Your task to perform on an android device: visit the assistant section in the google photos Image 0: 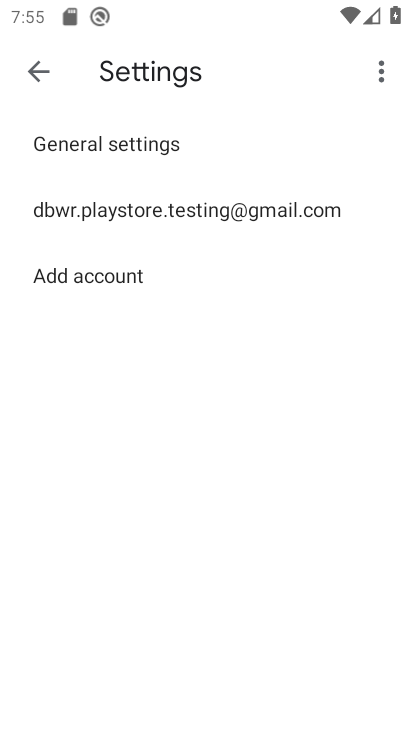
Step 0: press home button
Your task to perform on an android device: visit the assistant section in the google photos Image 1: 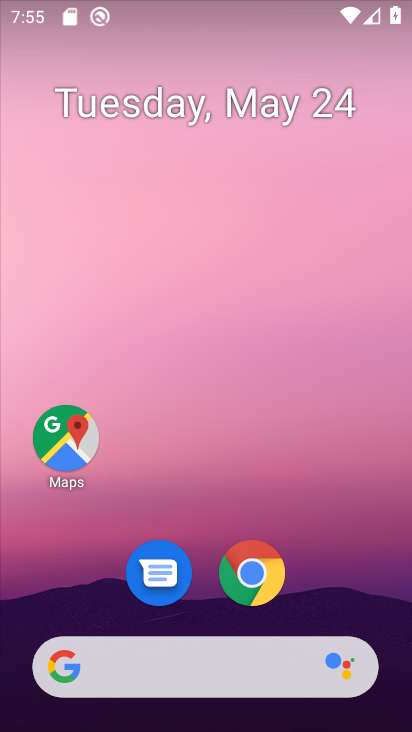
Step 1: drag from (348, 579) to (301, 84)
Your task to perform on an android device: visit the assistant section in the google photos Image 2: 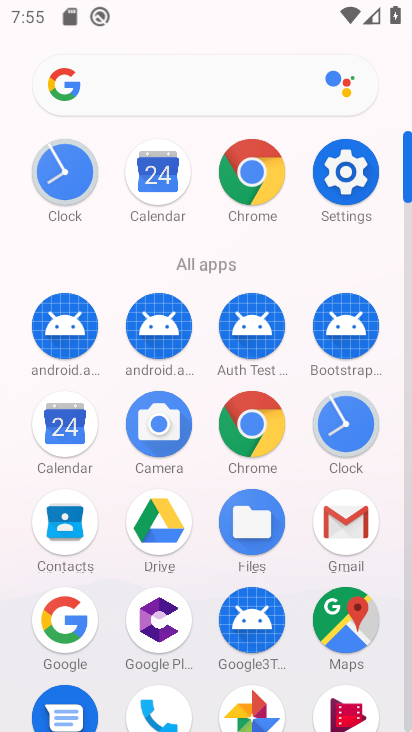
Step 2: drag from (382, 568) to (301, 227)
Your task to perform on an android device: visit the assistant section in the google photos Image 3: 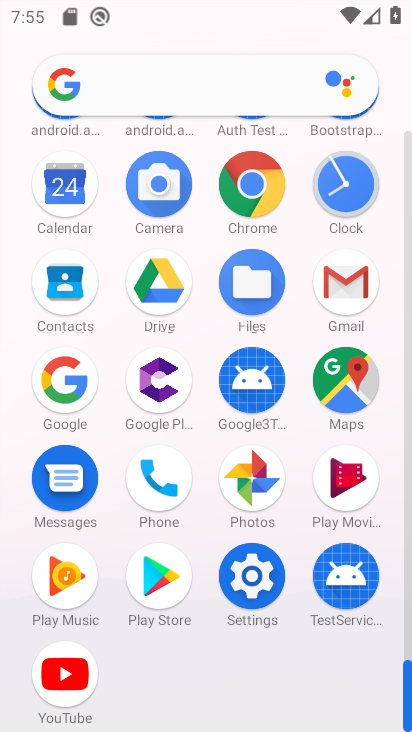
Step 3: click (258, 504)
Your task to perform on an android device: visit the assistant section in the google photos Image 4: 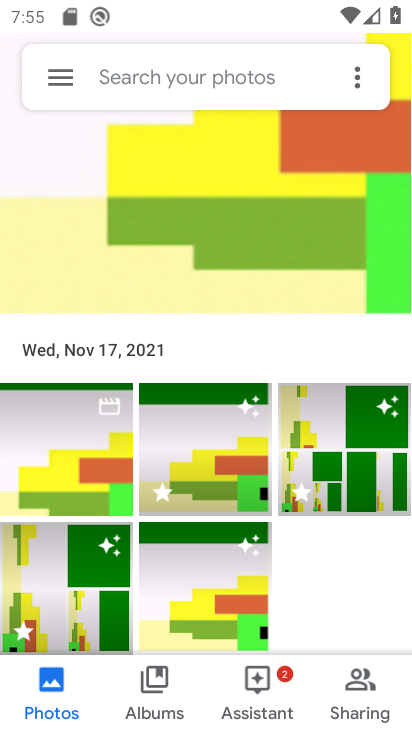
Step 4: click (246, 706)
Your task to perform on an android device: visit the assistant section in the google photos Image 5: 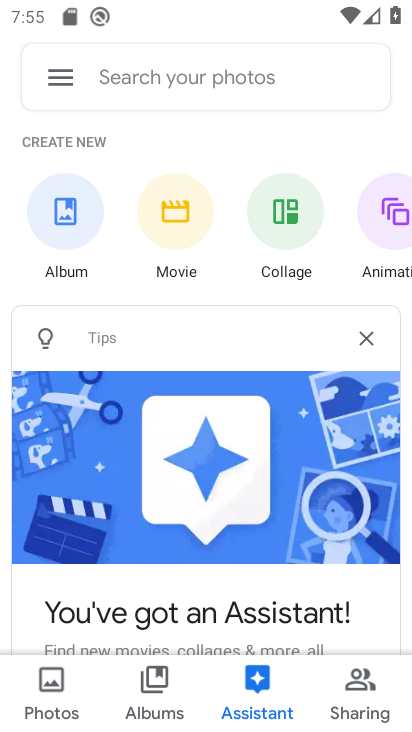
Step 5: task complete